Your task to perform on an android device: Go to Android settings Image 0: 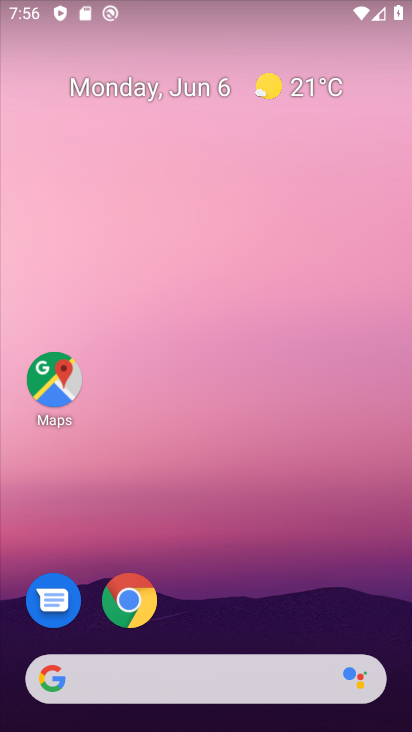
Step 0: drag from (202, 624) to (353, 23)
Your task to perform on an android device: Go to Android settings Image 1: 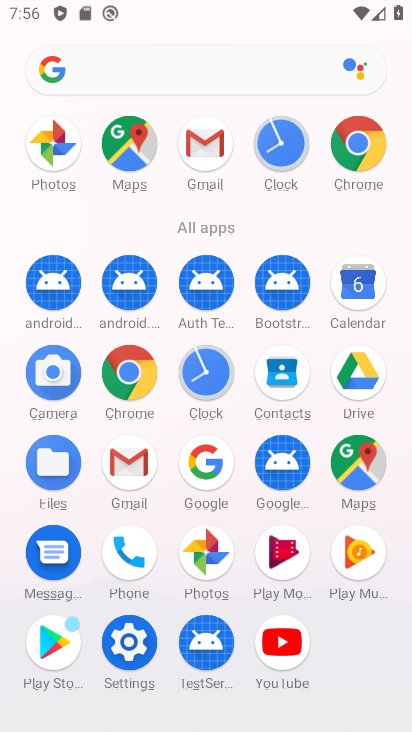
Step 1: click (130, 642)
Your task to perform on an android device: Go to Android settings Image 2: 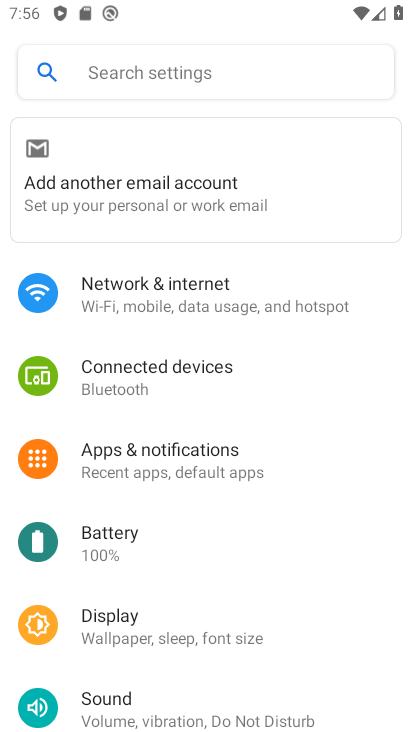
Step 2: drag from (221, 646) to (252, 121)
Your task to perform on an android device: Go to Android settings Image 3: 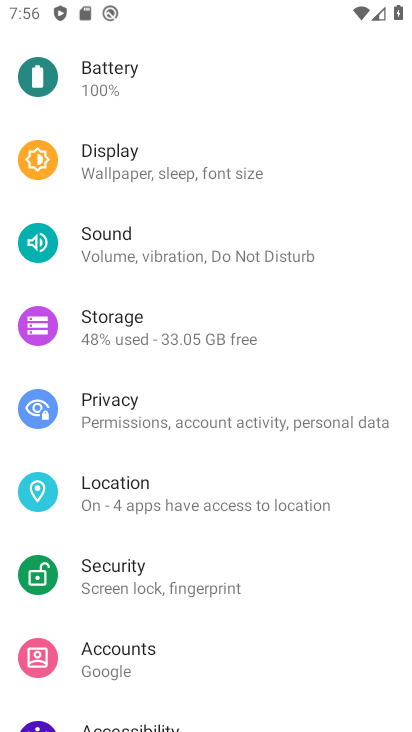
Step 3: drag from (165, 618) to (267, 59)
Your task to perform on an android device: Go to Android settings Image 4: 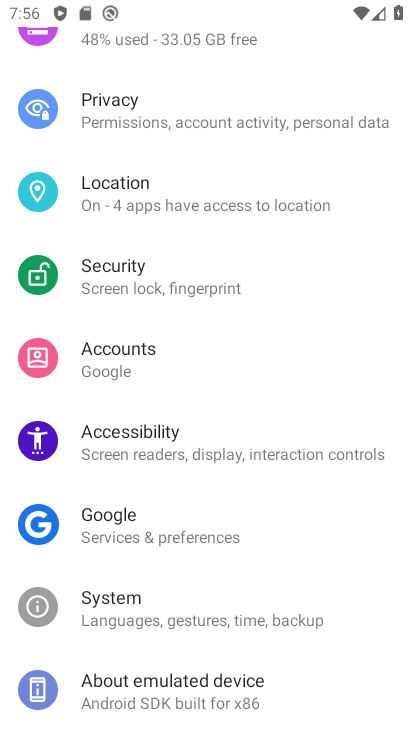
Step 4: drag from (197, 630) to (215, 361)
Your task to perform on an android device: Go to Android settings Image 5: 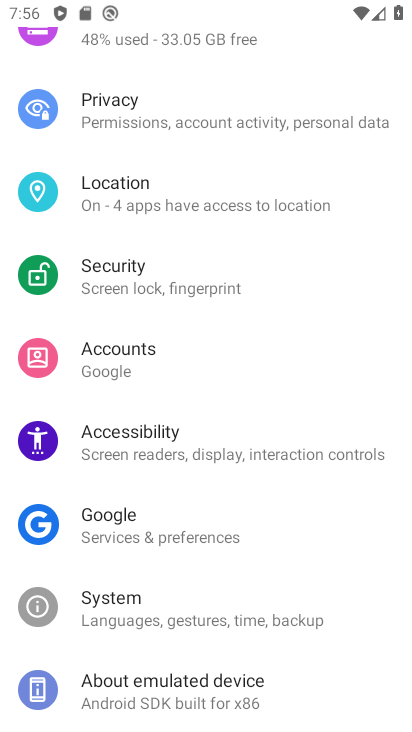
Step 5: click (182, 694)
Your task to perform on an android device: Go to Android settings Image 6: 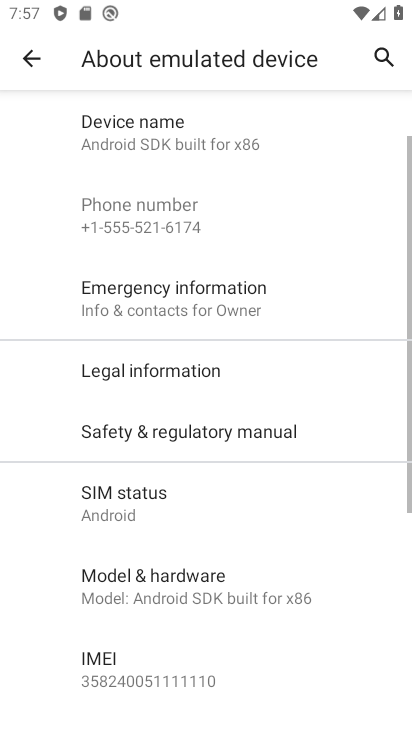
Step 6: drag from (157, 474) to (200, 156)
Your task to perform on an android device: Go to Android settings Image 7: 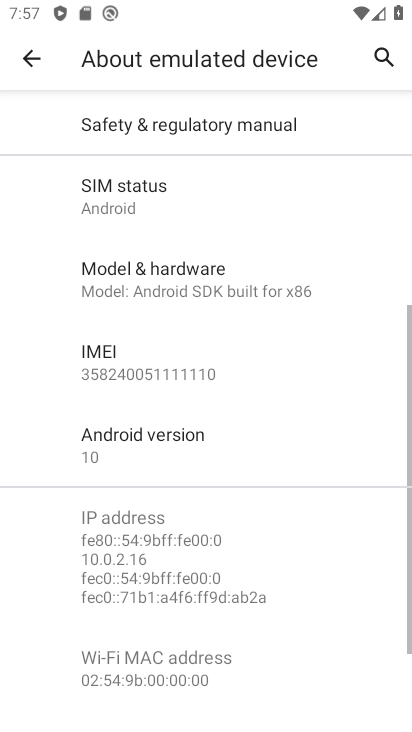
Step 7: click (170, 443)
Your task to perform on an android device: Go to Android settings Image 8: 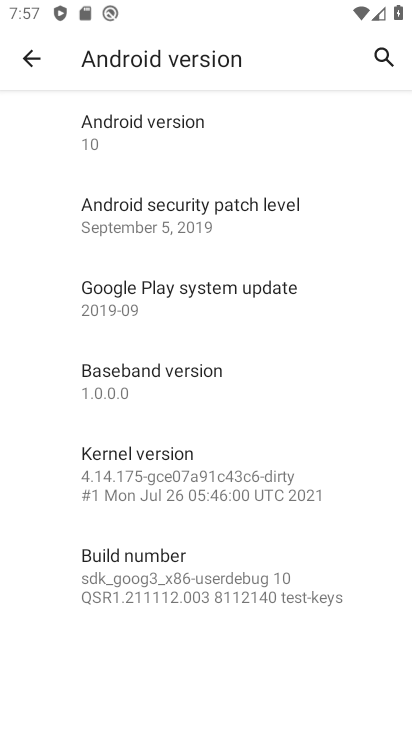
Step 8: task complete